Your task to perform on an android device: Open Android settings Image 0: 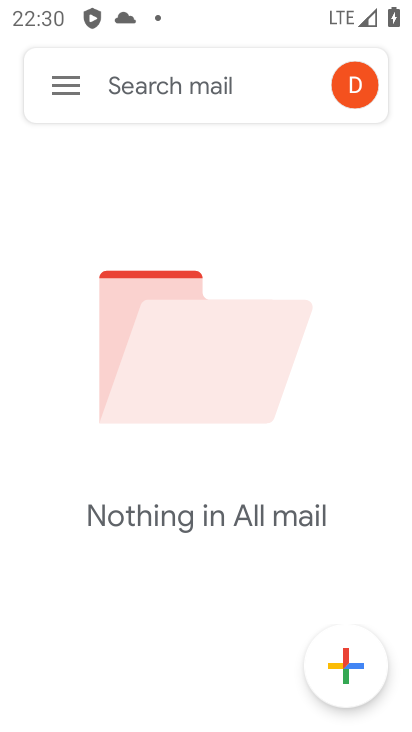
Step 0: press home button
Your task to perform on an android device: Open Android settings Image 1: 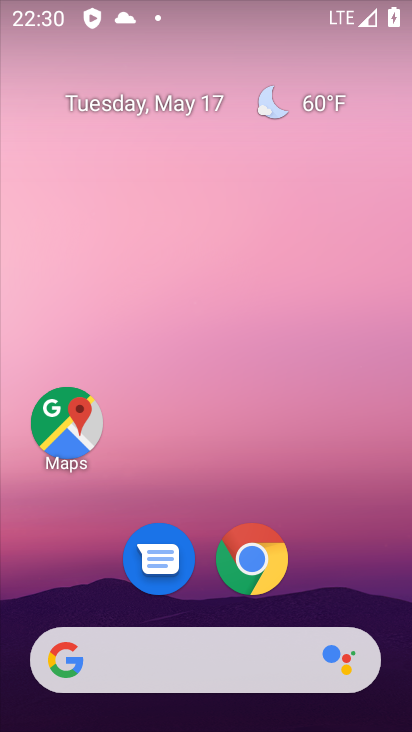
Step 1: drag from (364, 541) to (332, 128)
Your task to perform on an android device: Open Android settings Image 2: 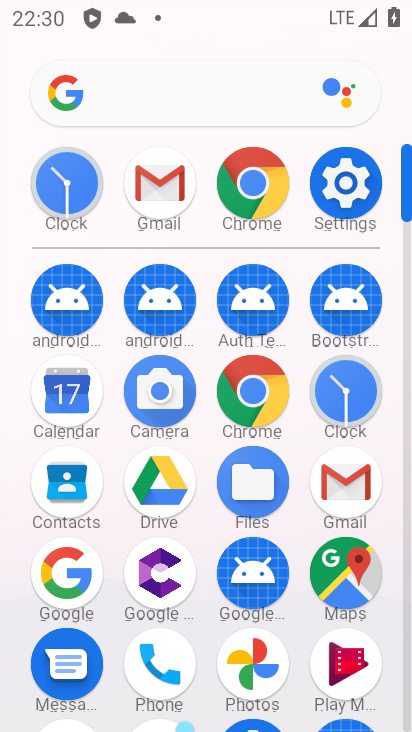
Step 2: click (330, 189)
Your task to perform on an android device: Open Android settings Image 3: 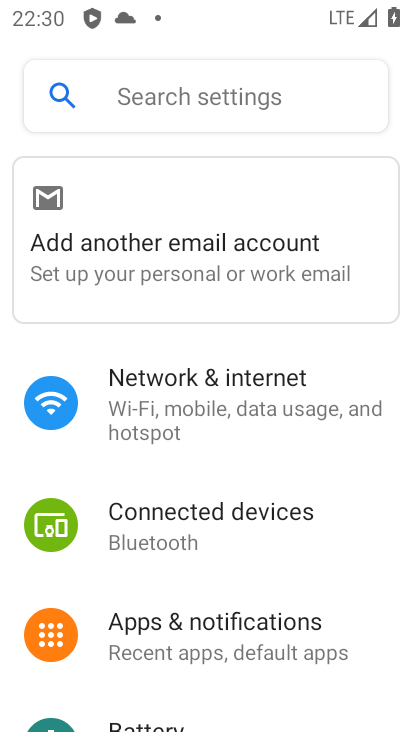
Step 3: task complete